Your task to perform on an android device: turn on sleep mode Image 0: 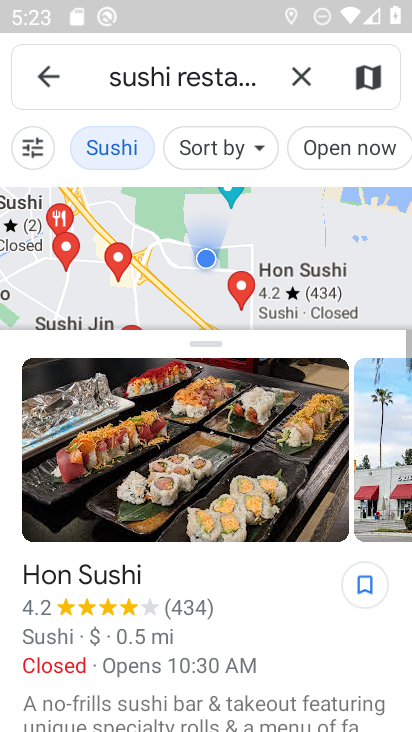
Step 0: press home button
Your task to perform on an android device: turn on sleep mode Image 1: 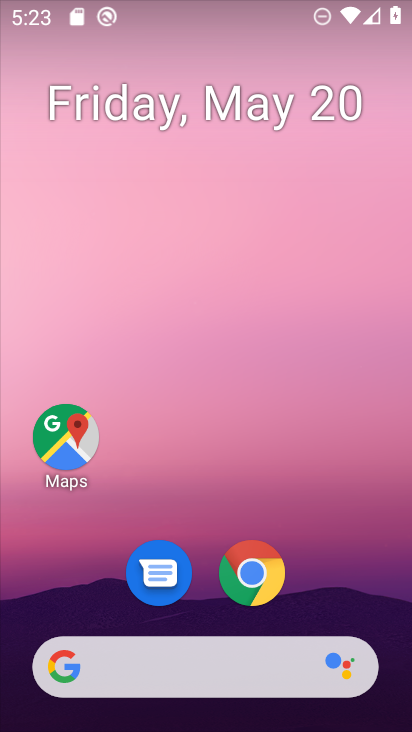
Step 1: drag from (314, 385) to (160, 27)
Your task to perform on an android device: turn on sleep mode Image 2: 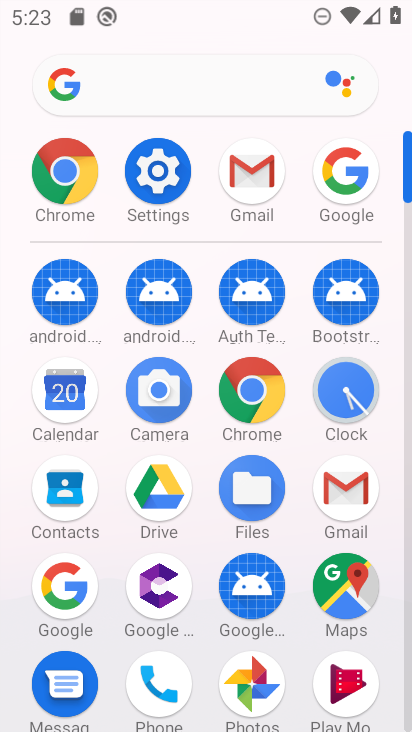
Step 2: click (170, 174)
Your task to perform on an android device: turn on sleep mode Image 3: 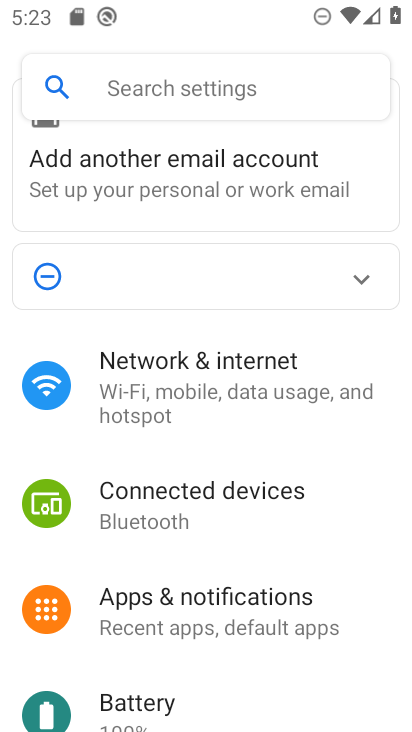
Step 3: drag from (279, 601) to (215, 156)
Your task to perform on an android device: turn on sleep mode Image 4: 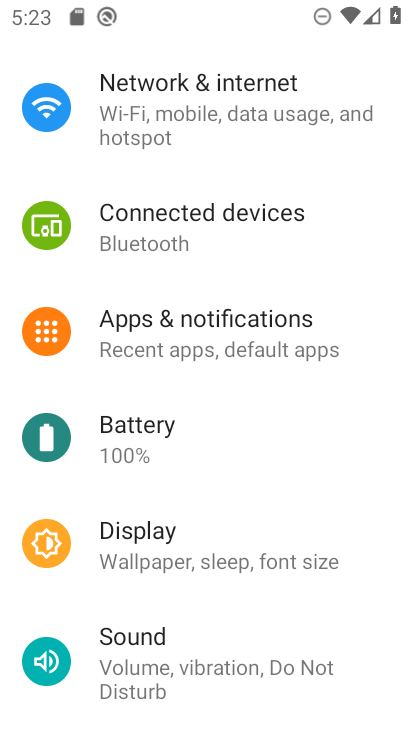
Step 4: click (180, 522)
Your task to perform on an android device: turn on sleep mode Image 5: 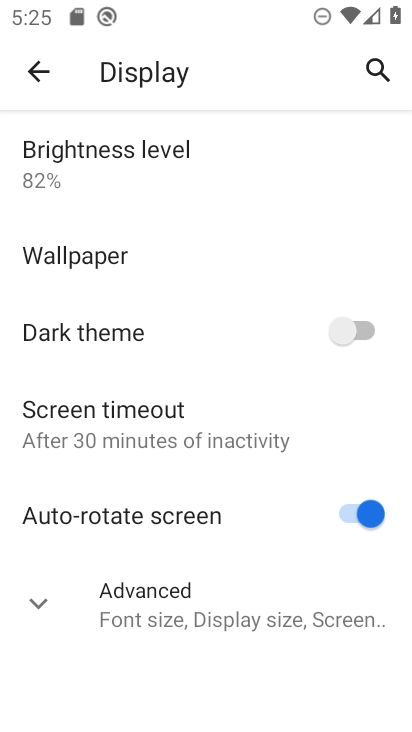
Step 5: task complete